Your task to perform on an android device: allow cookies in the chrome app Image 0: 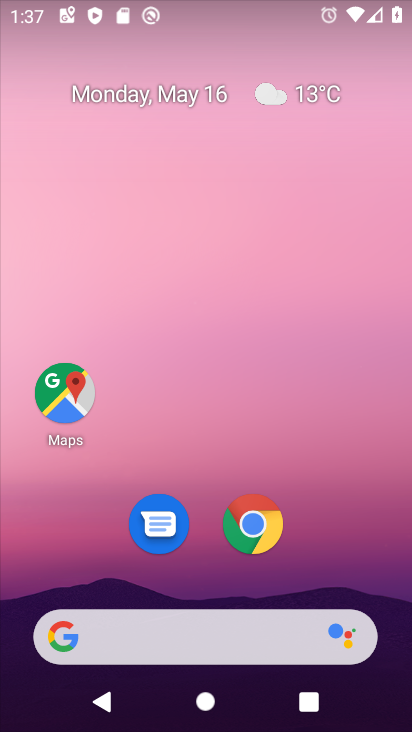
Step 0: click (267, 518)
Your task to perform on an android device: allow cookies in the chrome app Image 1: 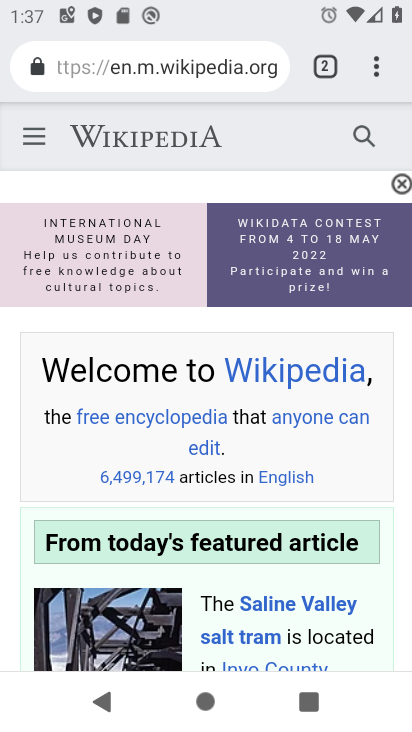
Step 1: click (371, 59)
Your task to perform on an android device: allow cookies in the chrome app Image 2: 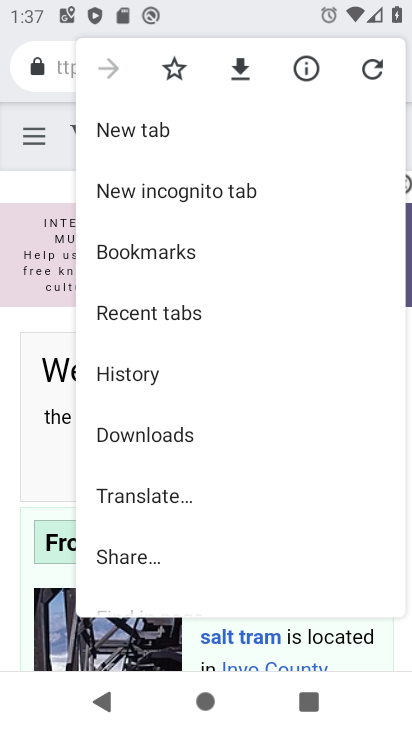
Step 2: drag from (257, 470) to (269, 171)
Your task to perform on an android device: allow cookies in the chrome app Image 3: 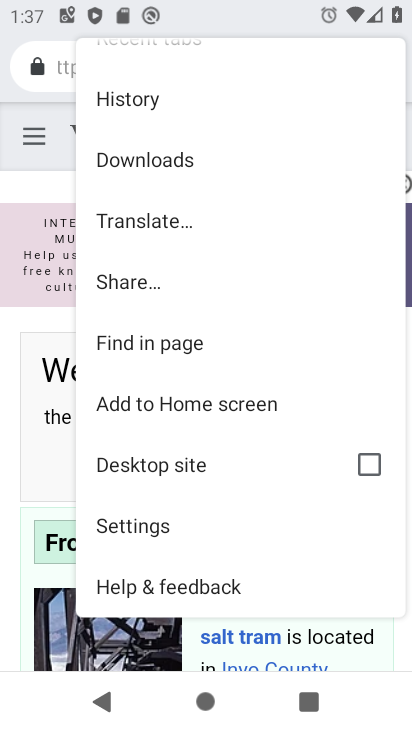
Step 3: click (184, 530)
Your task to perform on an android device: allow cookies in the chrome app Image 4: 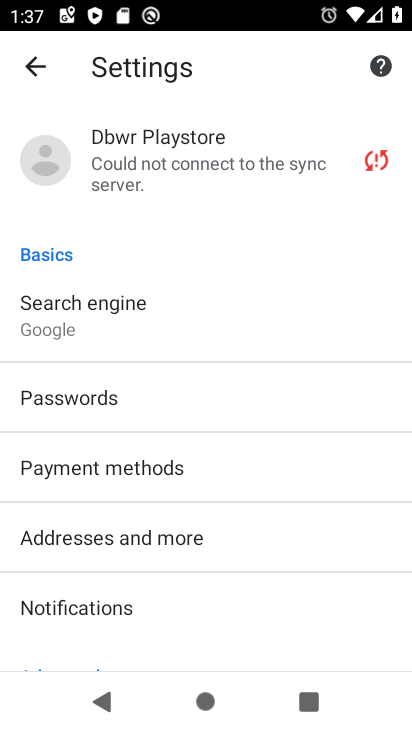
Step 4: drag from (234, 610) to (272, 160)
Your task to perform on an android device: allow cookies in the chrome app Image 5: 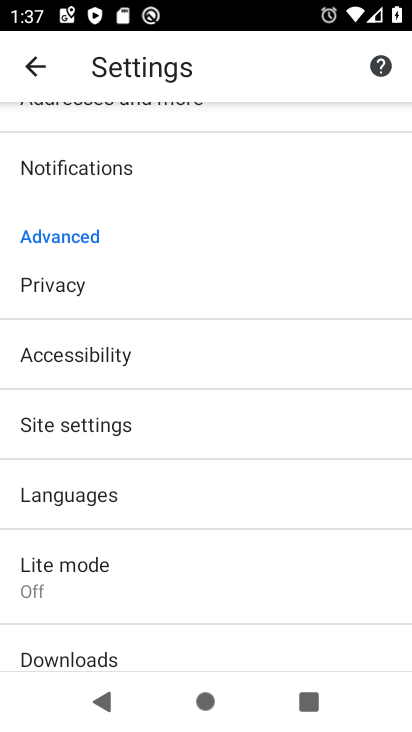
Step 5: click (204, 416)
Your task to perform on an android device: allow cookies in the chrome app Image 6: 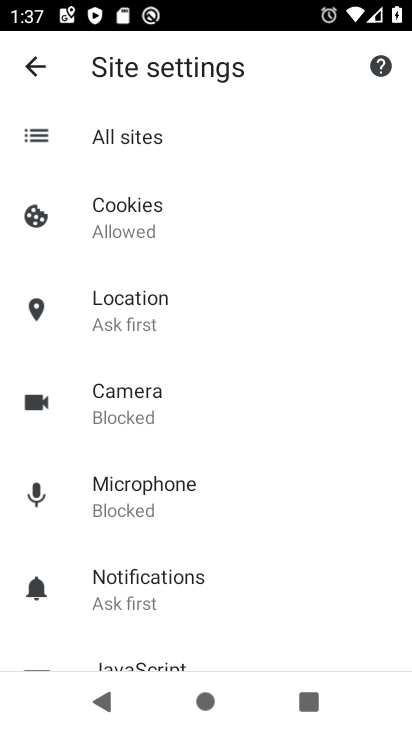
Step 6: click (235, 225)
Your task to perform on an android device: allow cookies in the chrome app Image 7: 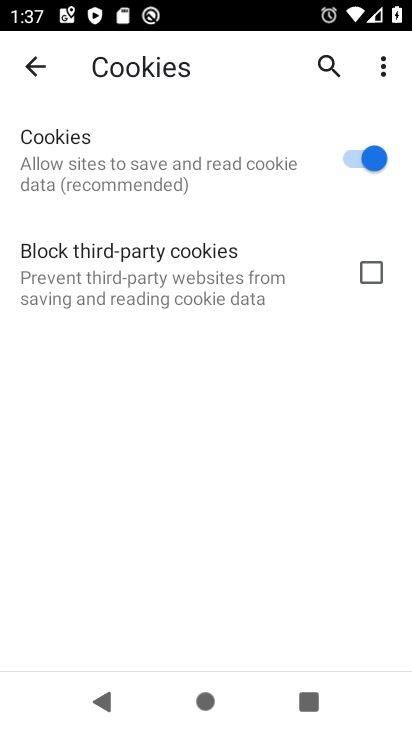
Step 7: task complete